Your task to perform on an android device: Open the phone app and click the voicemail tab. Image 0: 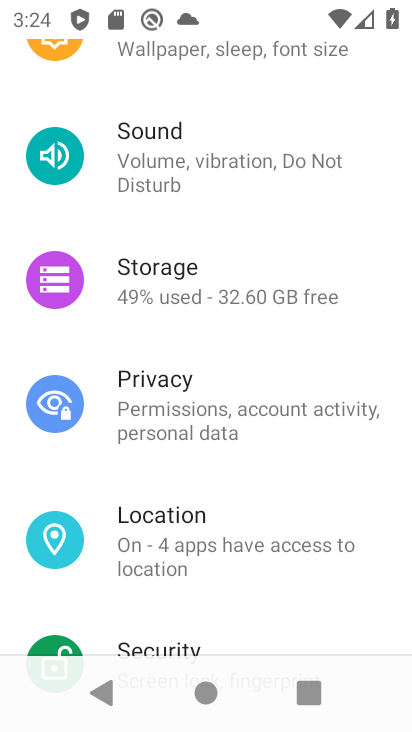
Step 0: press home button
Your task to perform on an android device: Open the phone app and click the voicemail tab. Image 1: 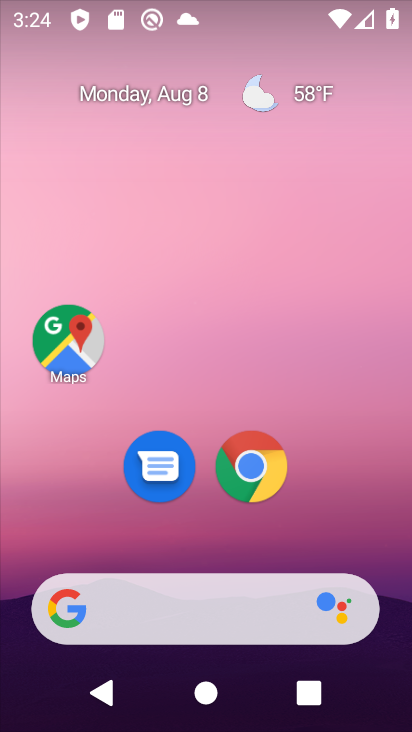
Step 1: drag from (253, 533) to (270, 186)
Your task to perform on an android device: Open the phone app and click the voicemail tab. Image 2: 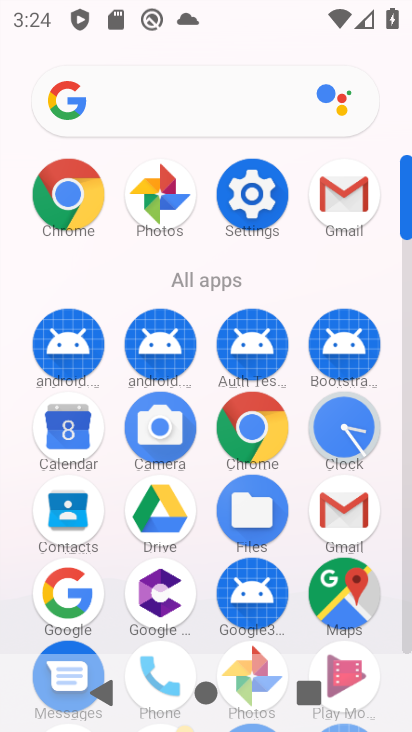
Step 2: drag from (262, 580) to (251, 190)
Your task to perform on an android device: Open the phone app and click the voicemail tab. Image 3: 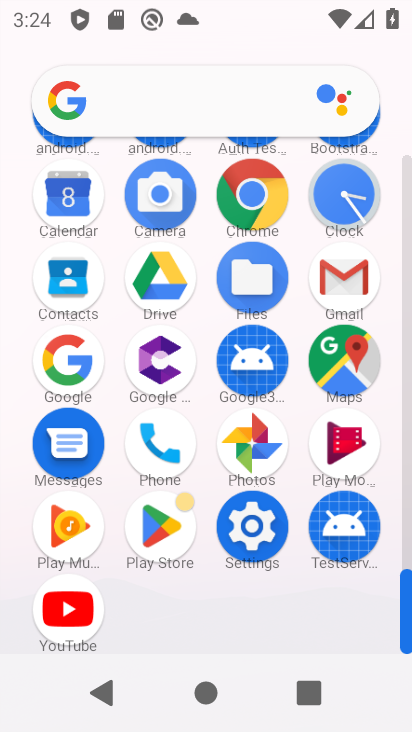
Step 3: click (156, 436)
Your task to perform on an android device: Open the phone app and click the voicemail tab. Image 4: 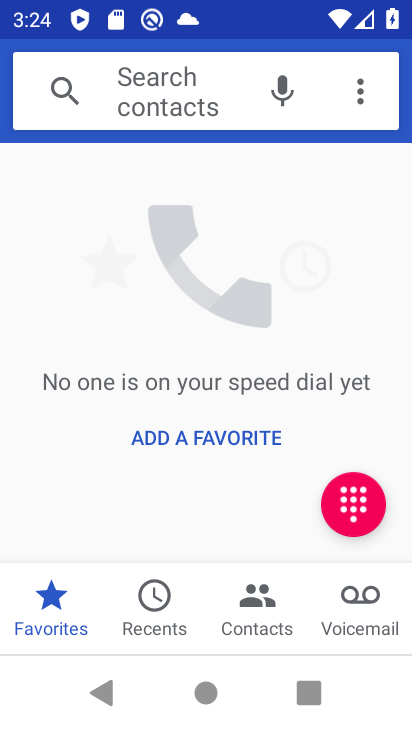
Step 4: click (346, 618)
Your task to perform on an android device: Open the phone app and click the voicemail tab. Image 5: 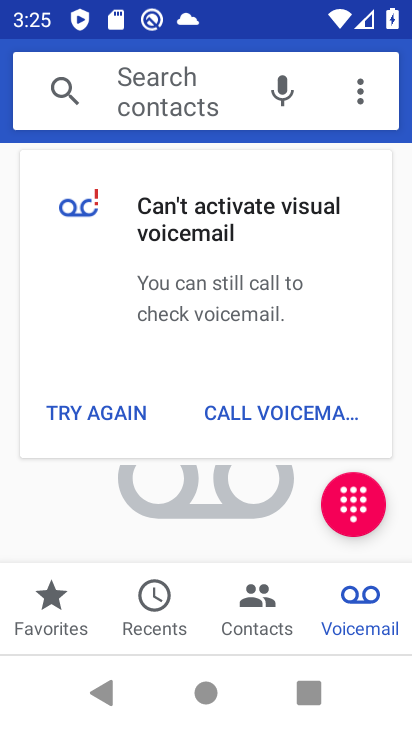
Step 5: task complete